Your task to perform on an android device: Open the calendar and show me this week's events? Image 0: 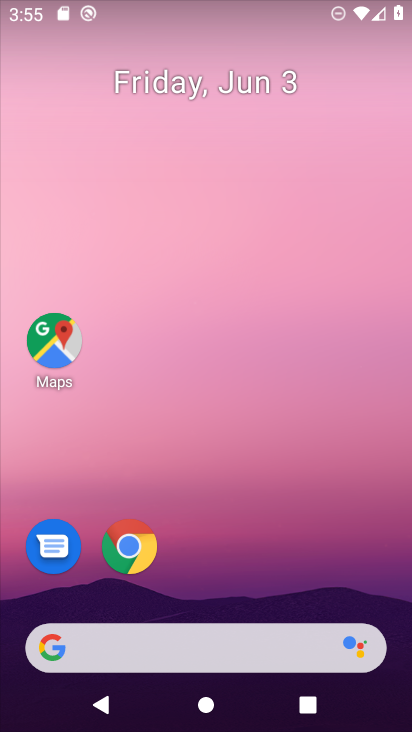
Step 0: drag from (280, 508) to (259, 0)
Your task to perform on an android device: Open the calendar and show me this week's events? Image 1: 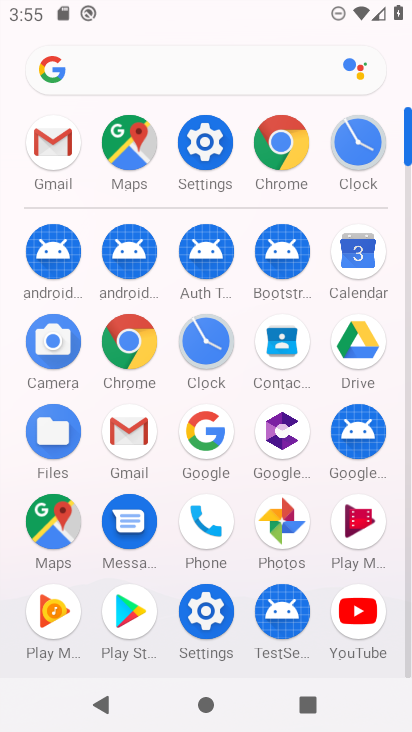
Step 1: click (361, 246)
Your task to perform on an android device: Open the calendar and show me this week's events? Image 2: 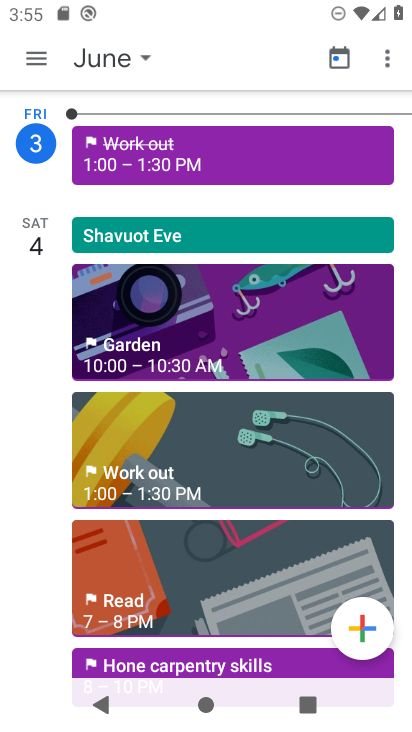
Step 2: click (39, 61)
Your task to perform on an android device: Open the calendar and show me this week's events? Image 3: 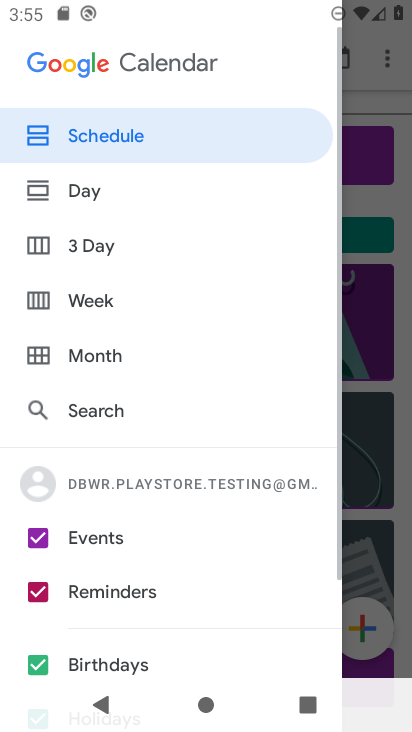
Step 3: click (39, 295)
Your task to perform on an android device: Open the calendar and show me this week's events? Image 4: 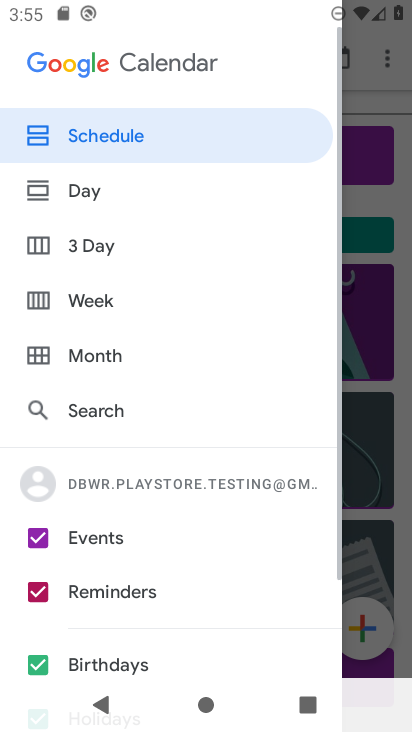
Step 4: click (39, 292)
Your task to perform on an android device: Open the calendar and show me this week's events? Image 5: 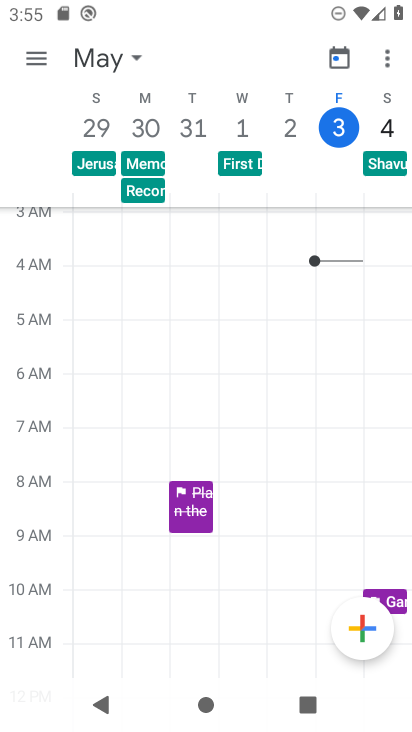
Step 5: task complete